Your task to perform on an android device: add a contact Image 0: 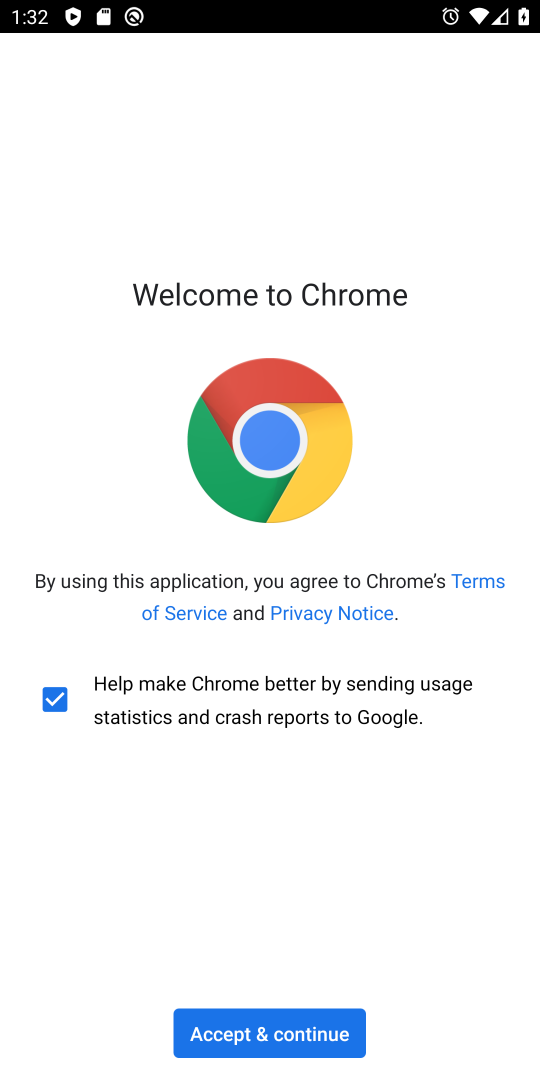
Step 0: press home button
Your task to perform on an android device: add a contact Image 1: 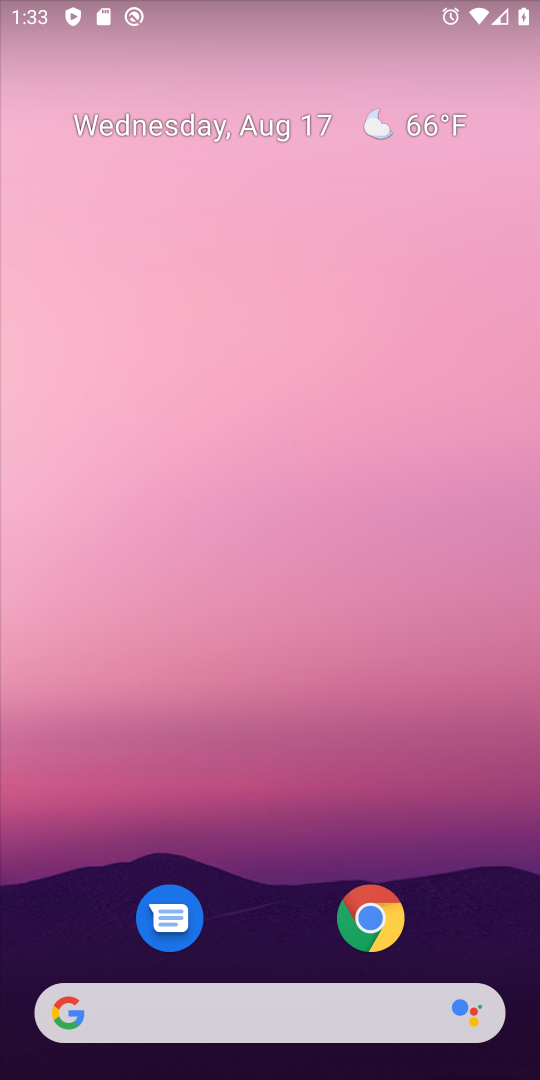
Step 1: drag from (303, 994) to (256, 379)
Your task to perform on an android device: add a contact Image 2: 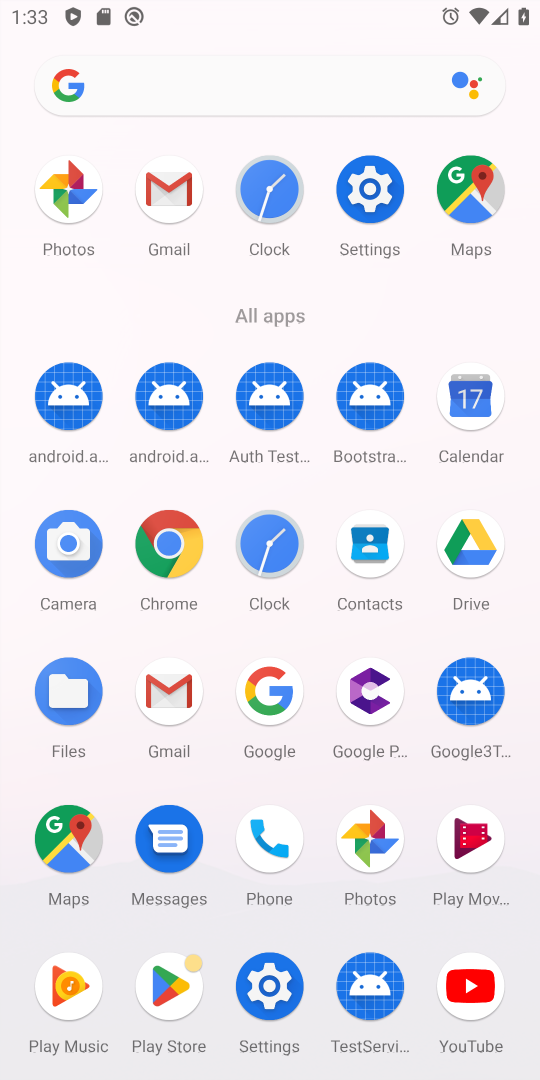
Step 2: click (364, 575)
Your task to perform on an android device: add a contact Image 3: 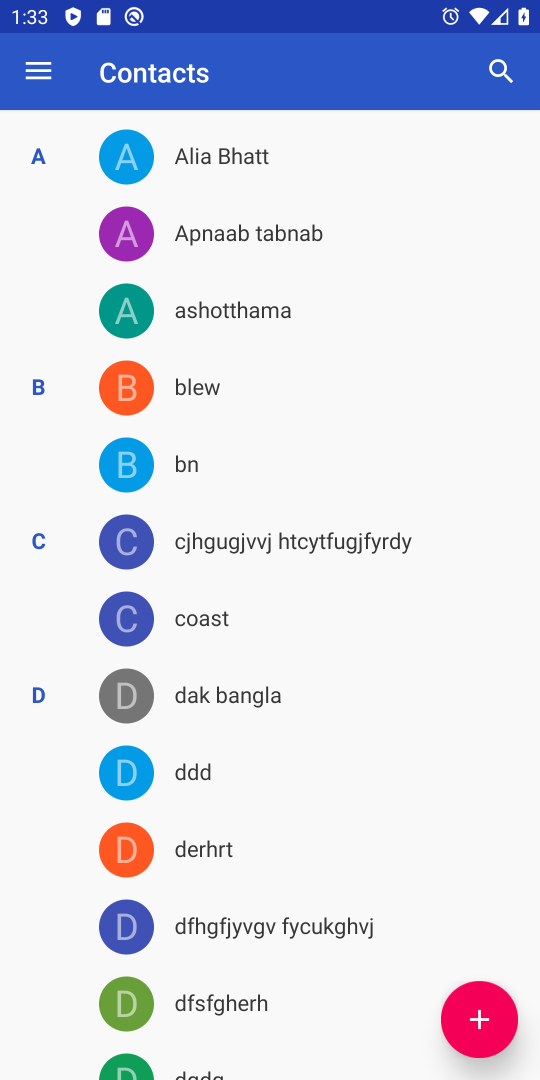
Step 3: click (487, 1053)
Your task to perform on an android device: add a contact Image 4: 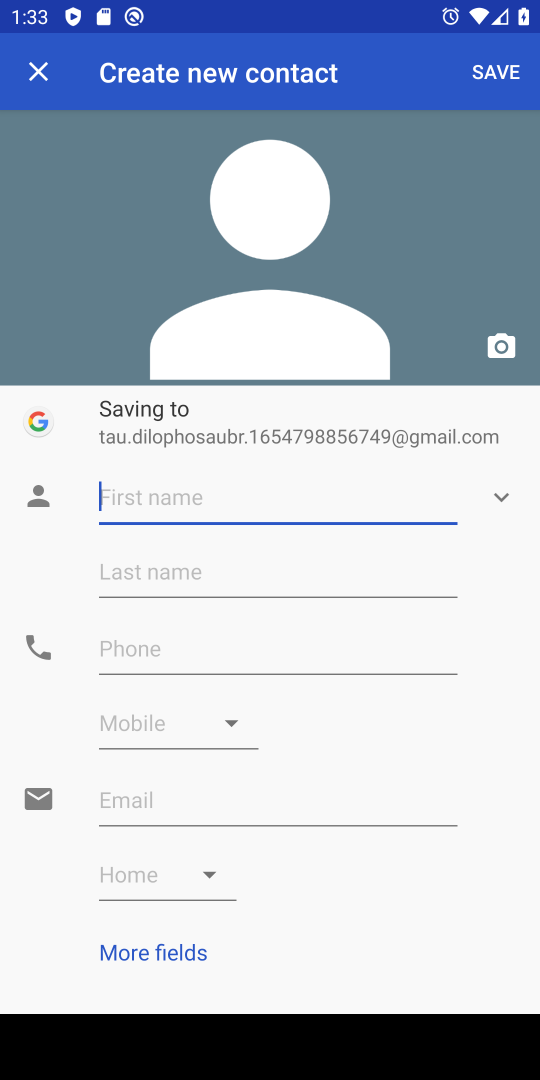
Step 4: type "xnxfgvihvjsd"
Your task to perform on an android device: add a contact Image 5: 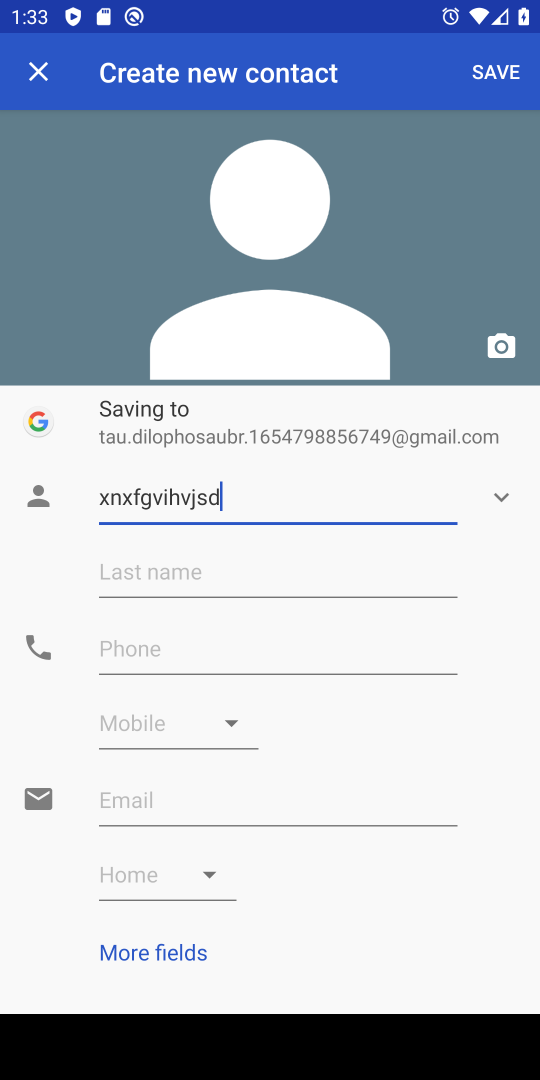
Step 5: click (110, 655)
Your task to perform on an android device: add a contact Image 6: 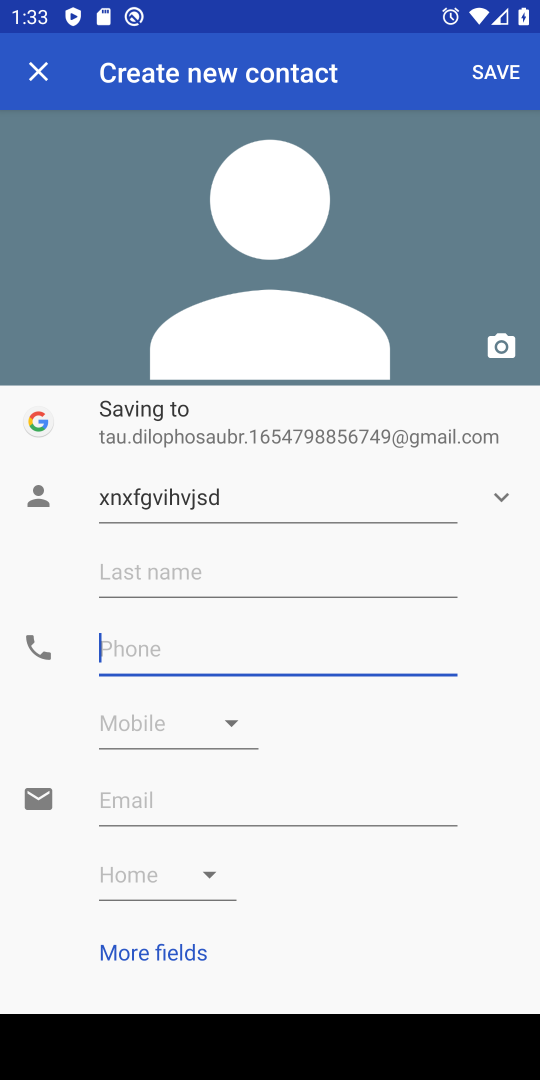
Step 6: type "23874223"
Your task to perform on an android device: add a contact Image 7: 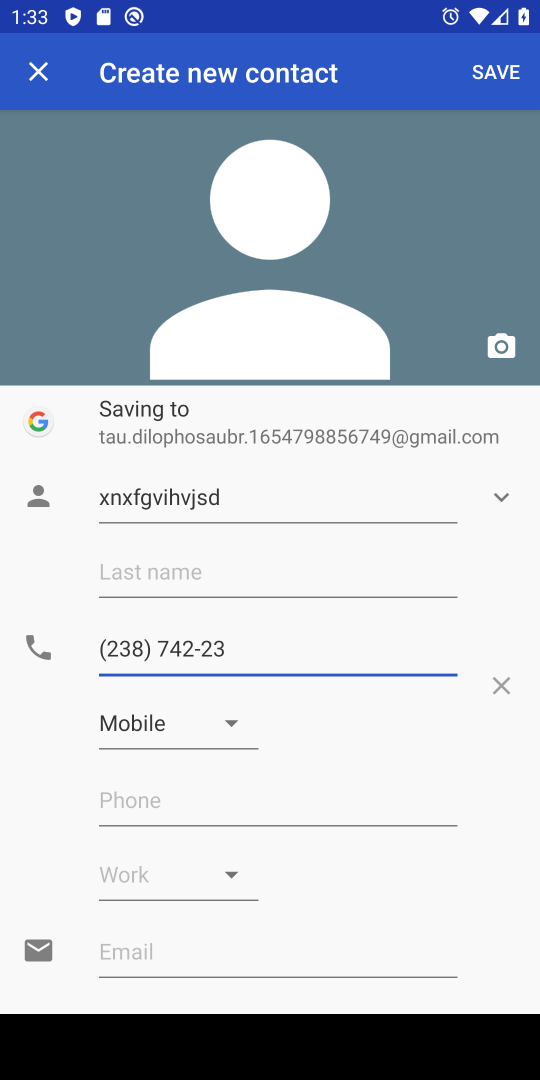
Step 7: click (480, 80)
Your task to perform on an android device: add a contact Image 8: 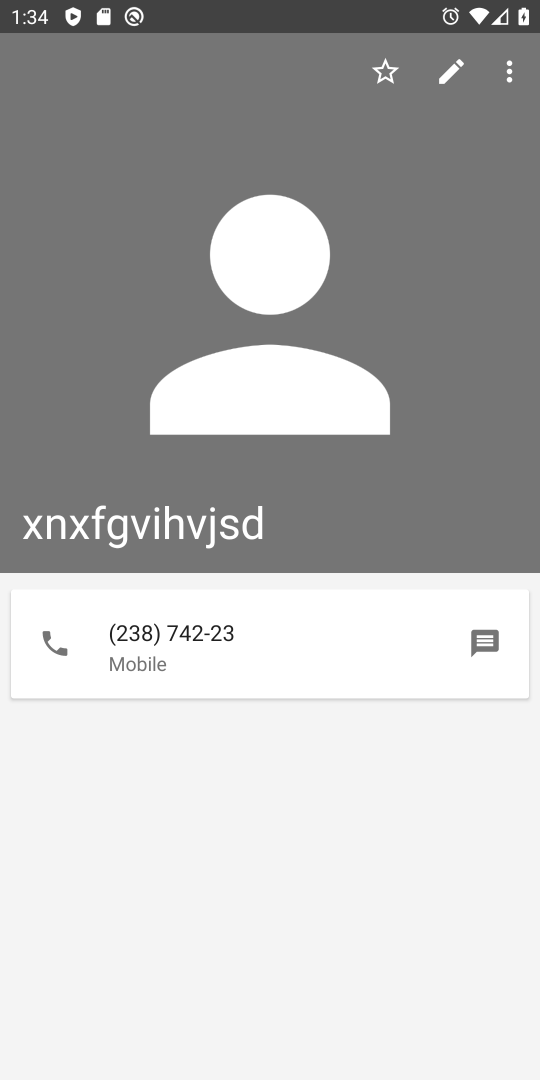
Step 8: task complete